Your task to perform on an android device: Open battery settings Image 0: 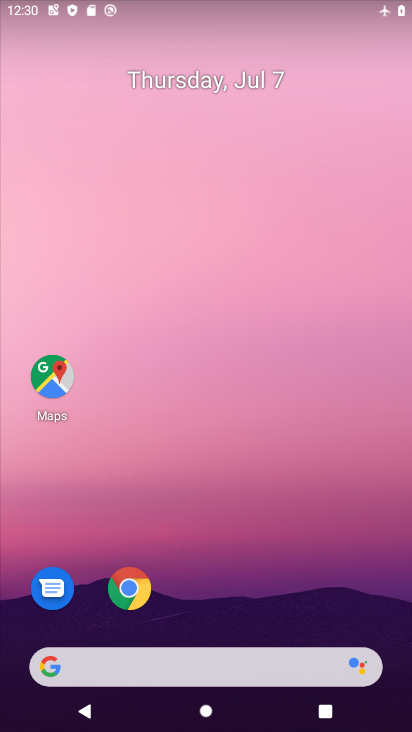
Step 0: drag from (179, 623) to (290, 54)
Your task to perform on an android device: Open battery settings Image 1: 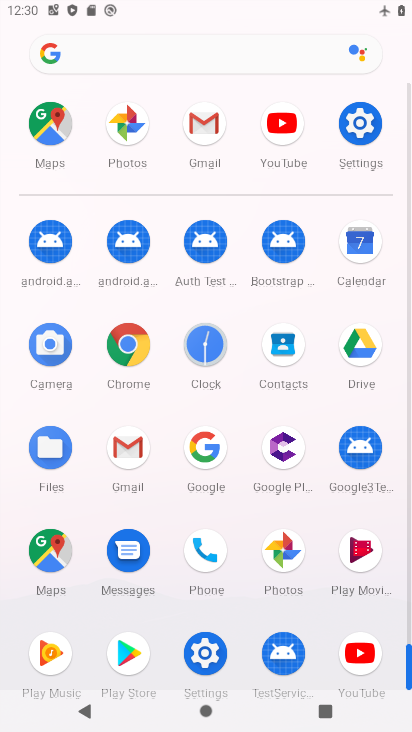
Step 1: click (206, 640)
Your task to perform on an android device: Open battery settings Image 2: 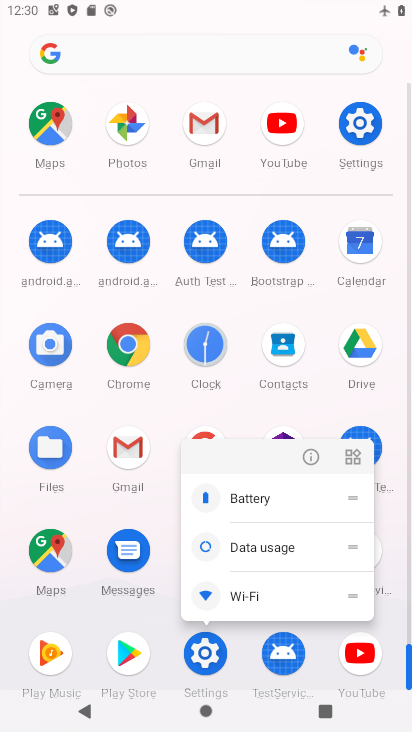
Step 2: click (309, 453)
Your task to perform on an android device: Open battery settings Image 3: 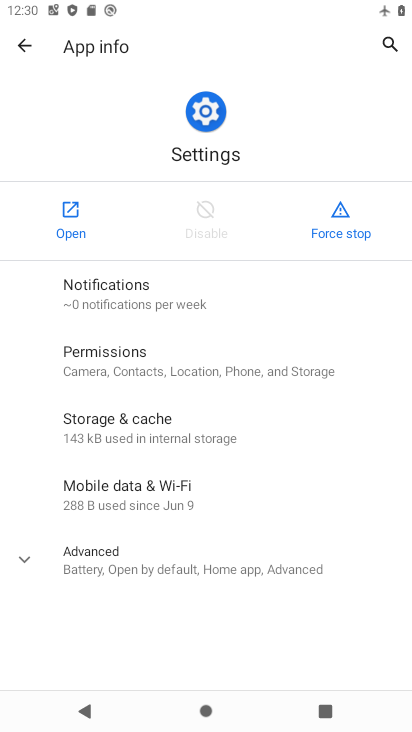
Step 3: click (61, 231)
Your task to perform on an android device: Open battery settings Image 4: 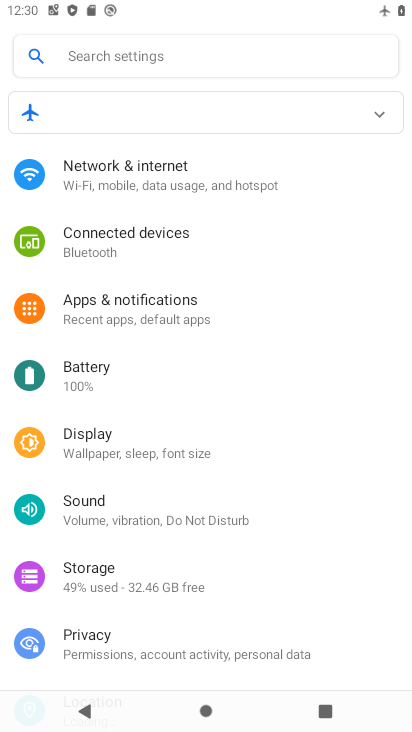
Step 4: click (110, 376)
Your task to perform on an android device: Open battery settings Image 5: 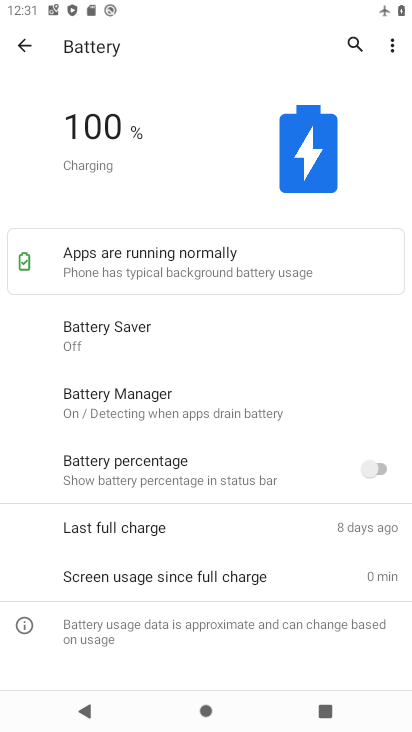
Step 5: task complete